Your task to perform on an android device: snooze an email in the gmail app Image 0: 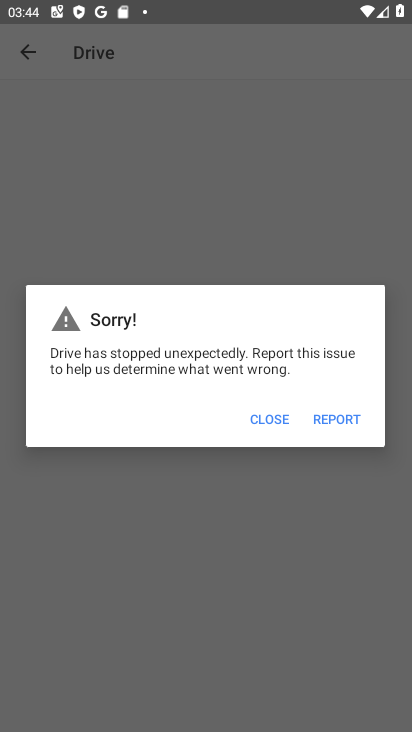
Step 0: press home button
Your task to perform on an android device: snooze an email in the gmail app Image 1: 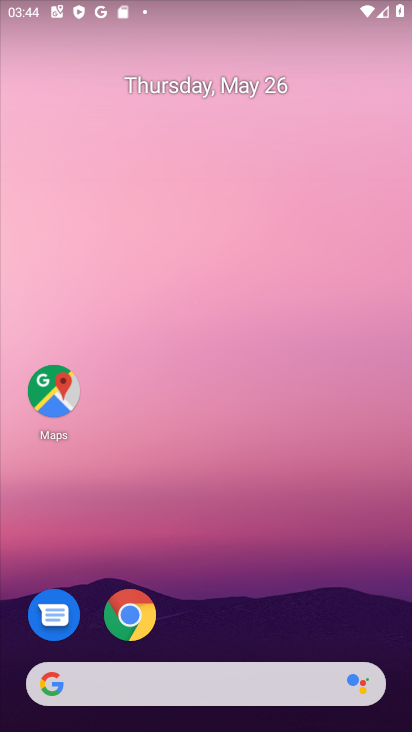
Step 1: drag from (230, 616) to (194, 103)
Your task to perform on an android device: snooze an email in the gmail app Image 2: 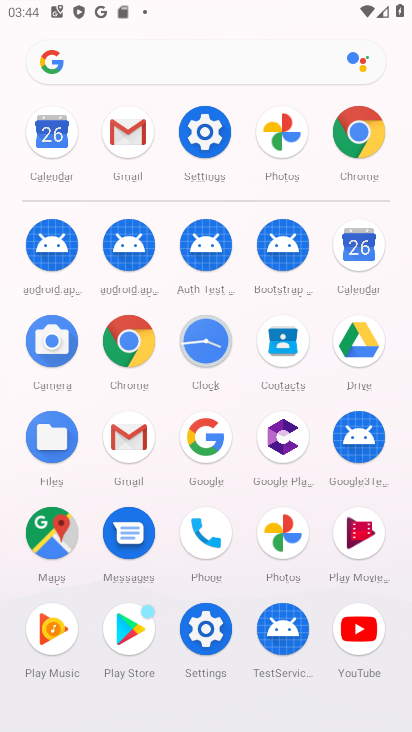
Step 2: click (123, 144)
Your task to perform on an android device: snooze an email in the gmail app Image 3: 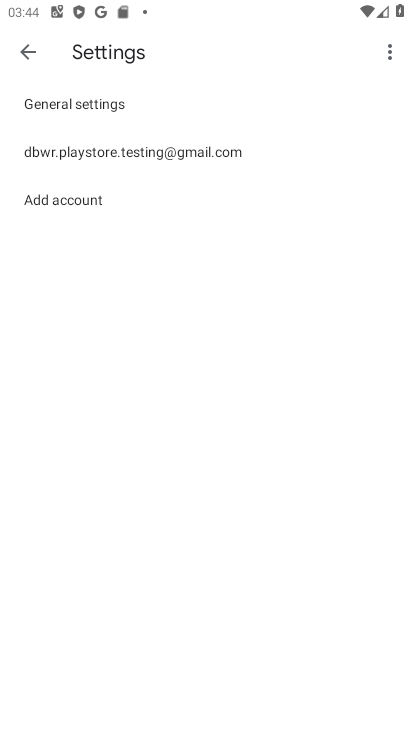
Step 3: click (122, 162)
Your task to perform on an android device: snooze an email in the gmail app Image 4: 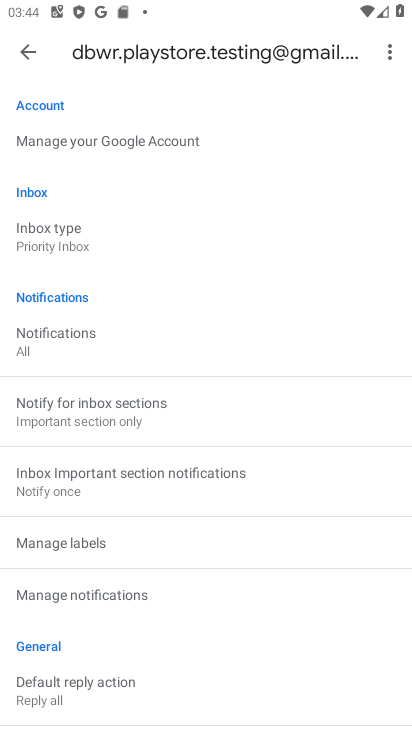
Step 4: click (30, 54)
Your task to perform on an android device: snooze an email in the gmail app Image 5: 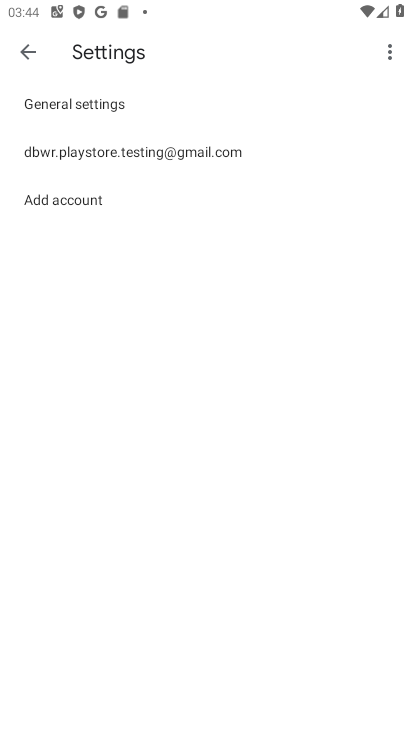
Step 5: click (29, 53)
Your task to perform on an android device: snooze an email in the gmail app Image 6: 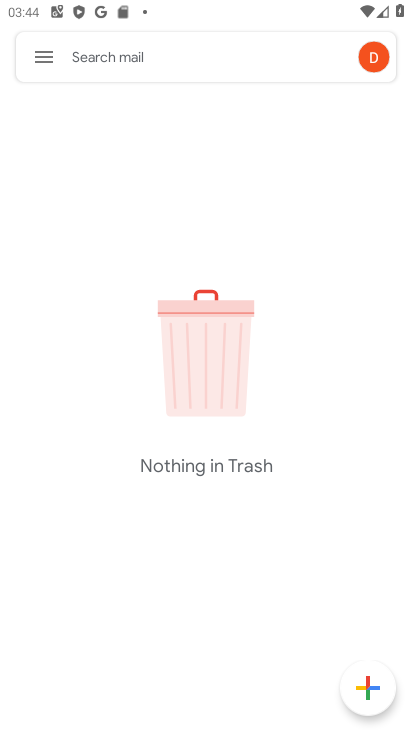
Step 6: click (37, 58)
Your task to perform on an android device: snooze an email in the gmail app Image 7: 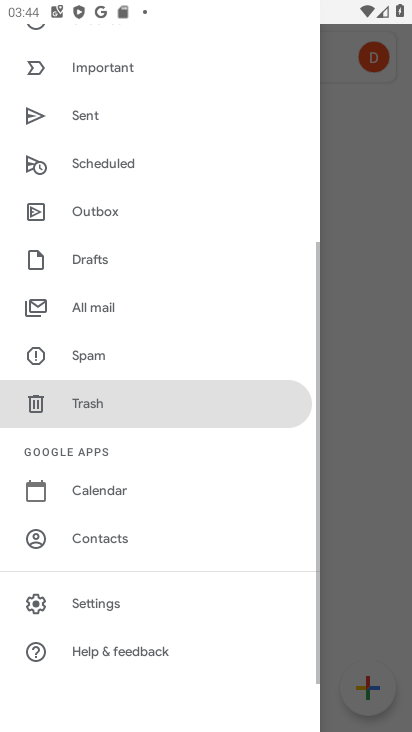
Step 7: click (144, 307)
Your task to perform on an android device: snooze an email in the gmail app Image 8: 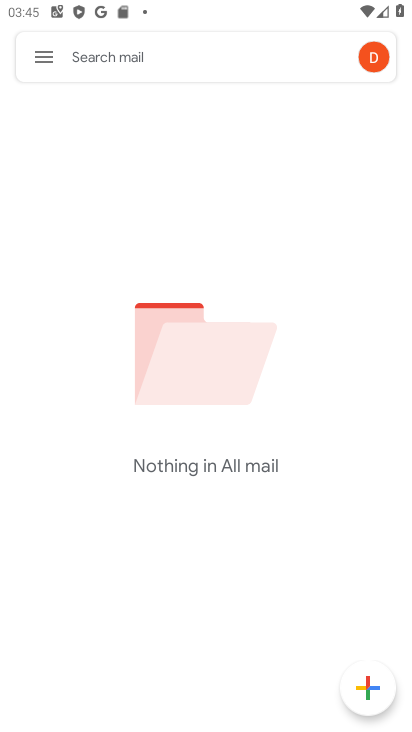
Step 8: task complete